Your task to perform on an android device: turn on showing notifications on the lock screen Image 0: 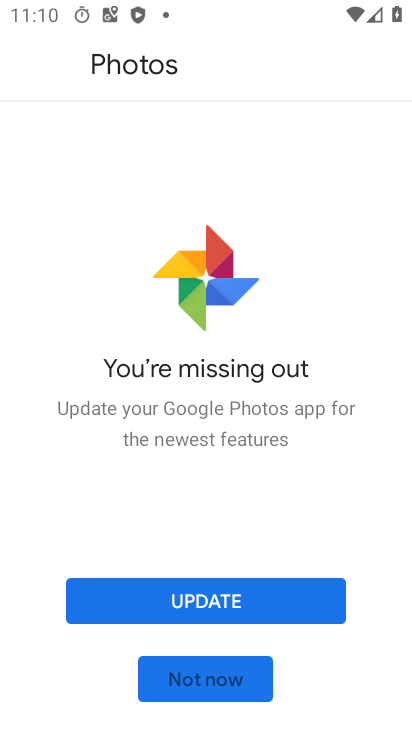
Step 0: press home button
Your task to perform on an android device: turn on showing notifications on the lock screen Image 1: 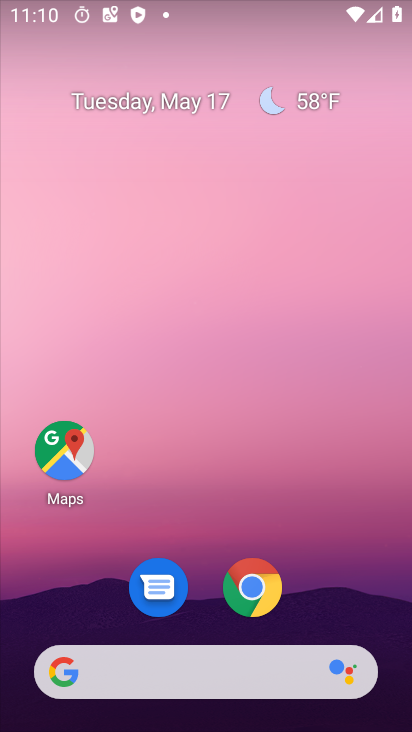
Step 1: drag from (346, 607) to (143, 194)
Your task to perform on an android device: turn on showing notifications on the lock screen Image 2: 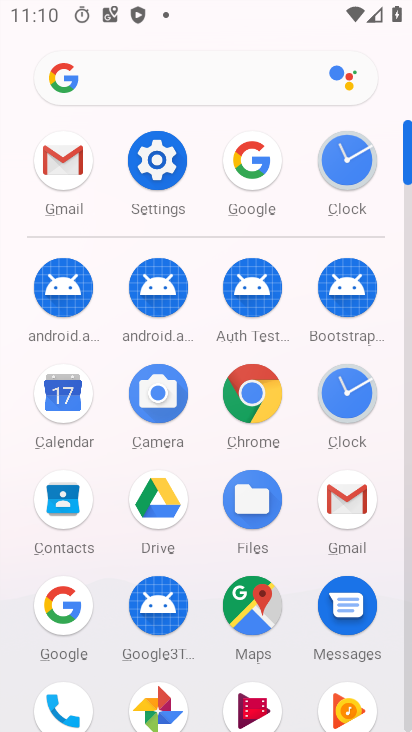
Step 2: click (156, 160)
Your task to perform on an android device: turn on showing notifications on the lock screen Image 3: 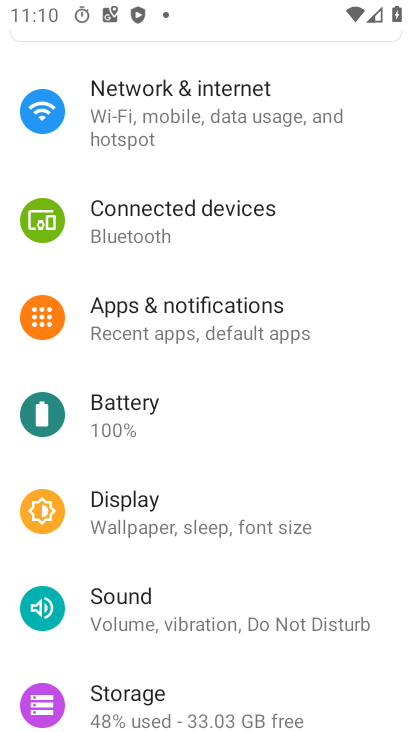
Step 3: click (200, 309)
Your task to perform on an android device: turn on showing notifications on the lock screen Image 4: 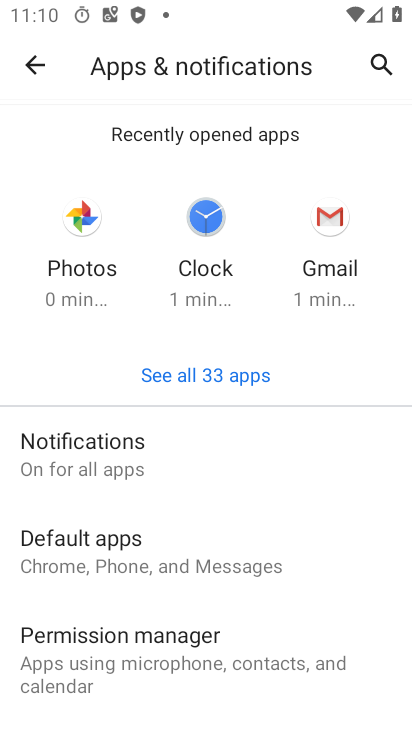
Step 4: click (88, 437)
Your task to perform on an android device: turn on showing notifications on the lock screen Image 5: 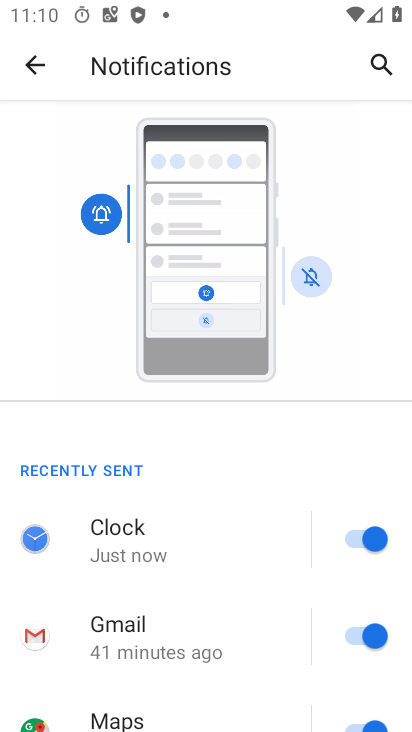
Step 5: drag from (183, 589) to (185, 488)
Your task to perform on an android device: turn on showing notifications on the lock screen Image 6: 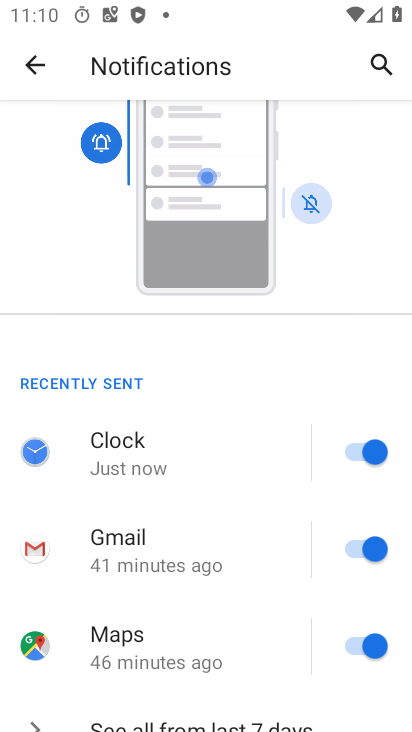
Step 6: drag from (134, 590) to (163, 517)
Your task to perform on an android device: turn on showing notifications on the lock screen Image 7: 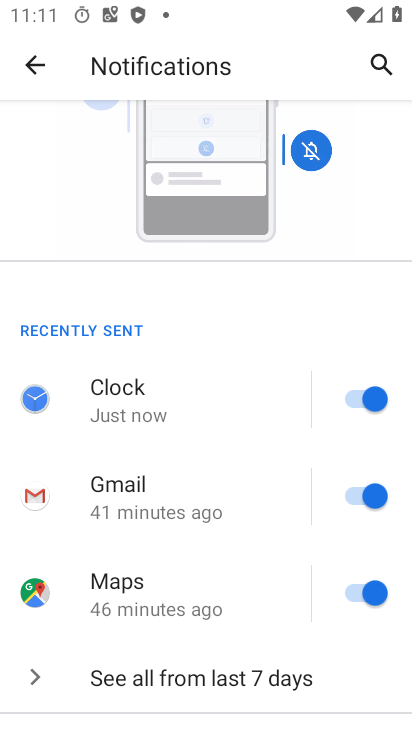
Step 7: drag from (150, 551) to (167, 469)
Your task to perform on an android device: turn on showing notifications on the lock screen Image 8: 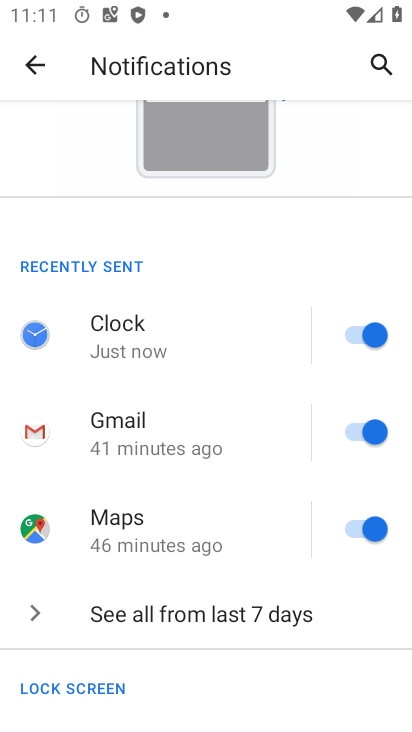
Step 8: drag from (110, 572) to (171, 491)
Your task to perform on an android device: turn on showing notifications on the lock screen Image 9: 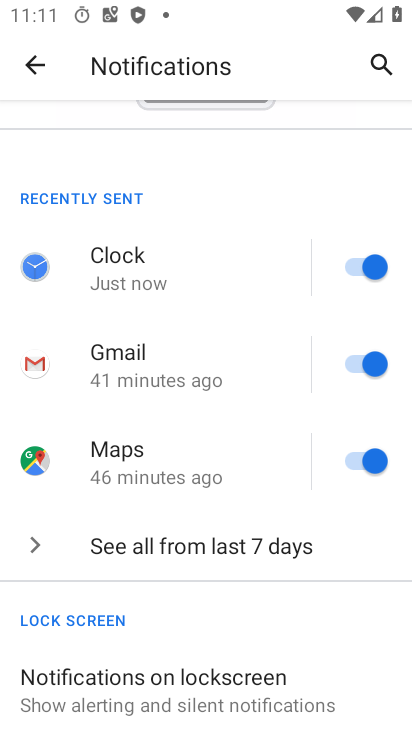
Step 9: drag from (149, 621) to (227, 486)
Your task to perform on an android device: turn on showing notifications on the lock screen Image 10: 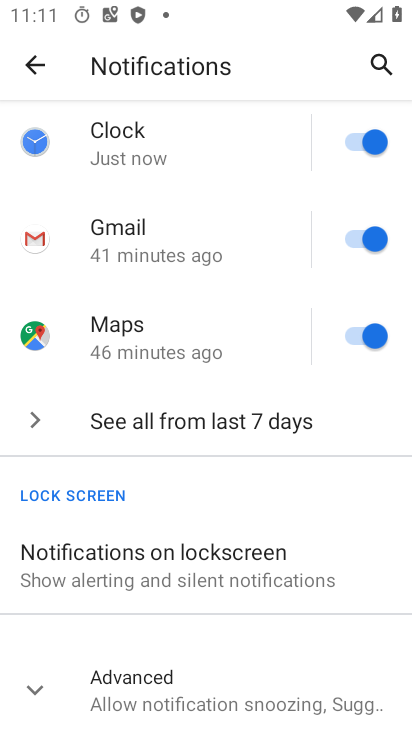
Step 10: click (217, 551)
Your task to perform on an android device: turn on showing notifications on the lock screen Image 11: 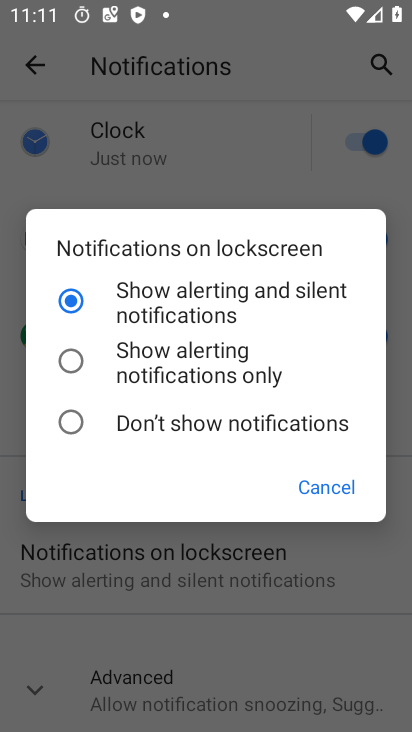
Step 11: click (170, 293)
Your task to perform on an android device: turn on showing notifications on the lock screen Image 12: 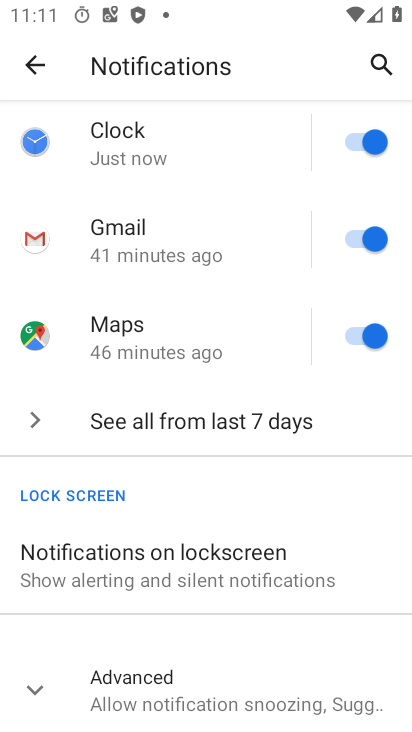
Step 12: task complete